Your task to perform on an android device: remove spam from my inbox in the gmail app Image 0: 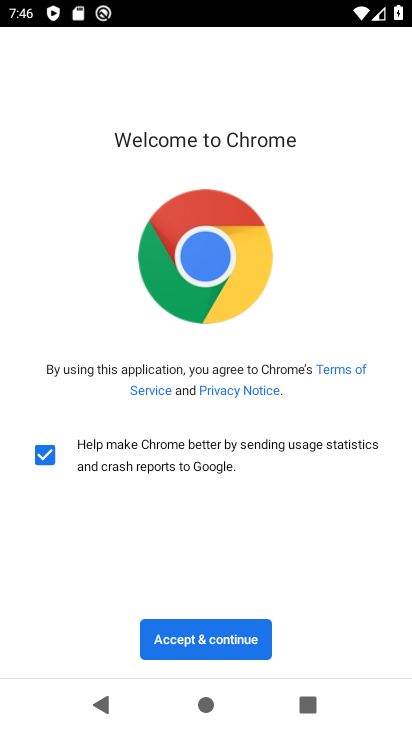
Step 0: press home button
Your task to perform on an android device: remove spam from my inbox in the gmail app Image 1: 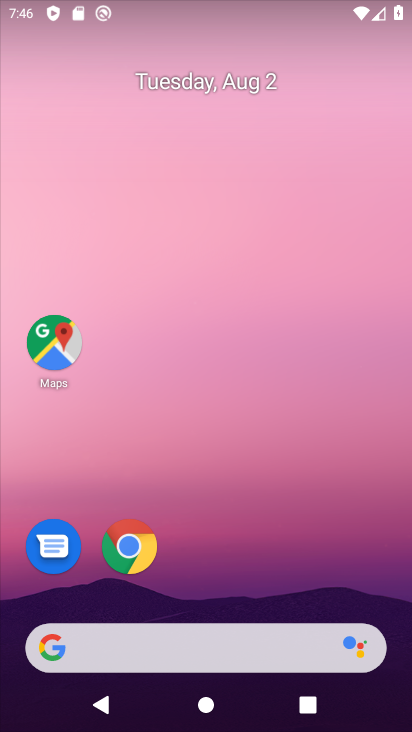
Step 1: drag from (188, 420) to (321, 1)
Your task to perform on an android device: remove spam from my inbox in the gmail app Image 2: 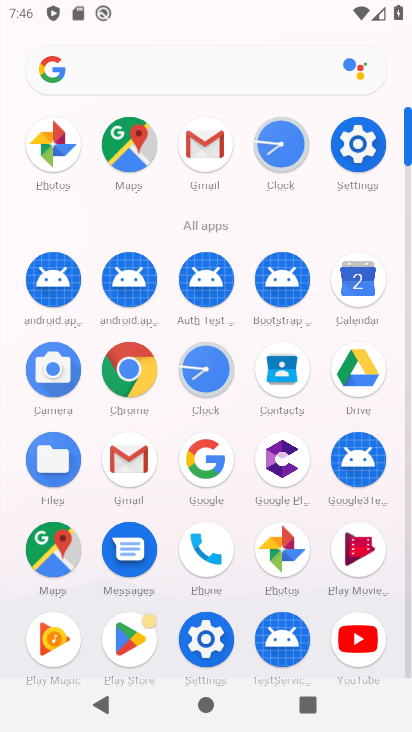
Step 2: click (130, 467)
Your task to perform on an android device: remove spam from my inbox in the gmail app Image 3: 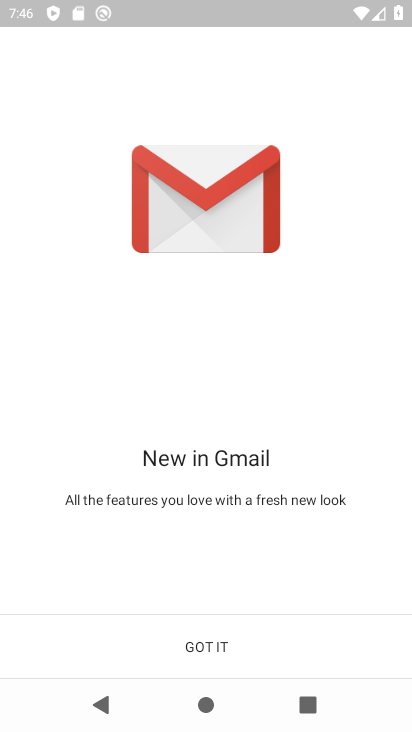
Step 3: click (187, 647)
Your task to perform on an android device: remove spam from my inbox in the gmail app Image 4: 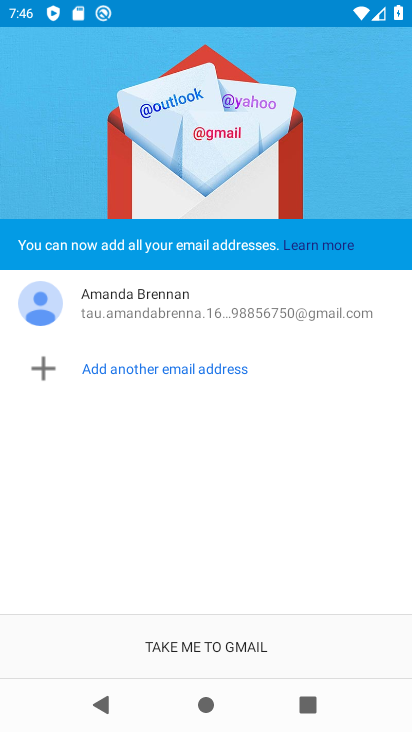
Step 4: click (190, 648)
Your task to perform on an android device: remove spam from my inbox in the gmail app Image 5: 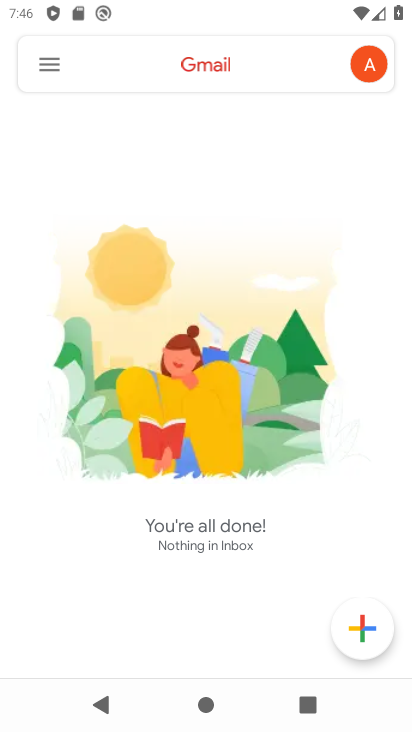
Step 5: click (45, 59)
Your task to perform on an android device: remove spam from my inbox in the gmail app Image 6: 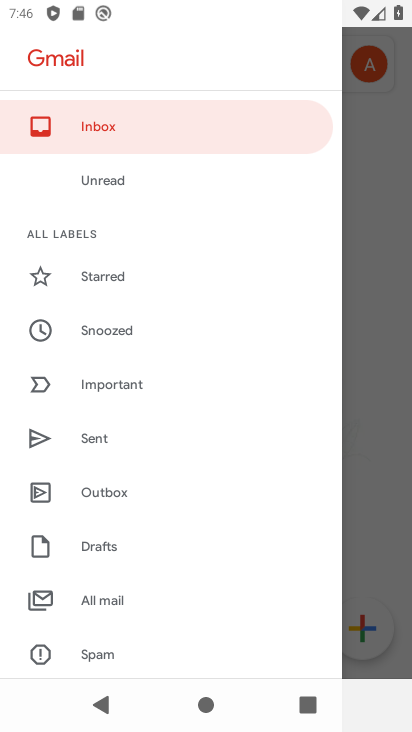
Step 6: click (91, 652)
Your task to perform on an android device: remove spam from my inbox in the gmail app Image 7: 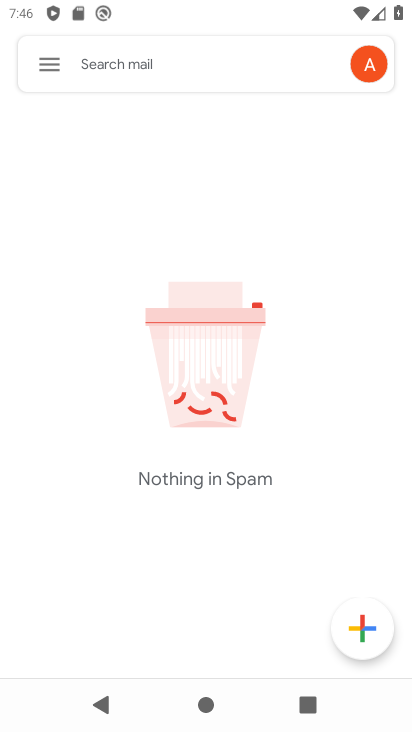
Step 7: task complete